Your task to perform on an android device: turn on the 24-hour format for clock Image 0: 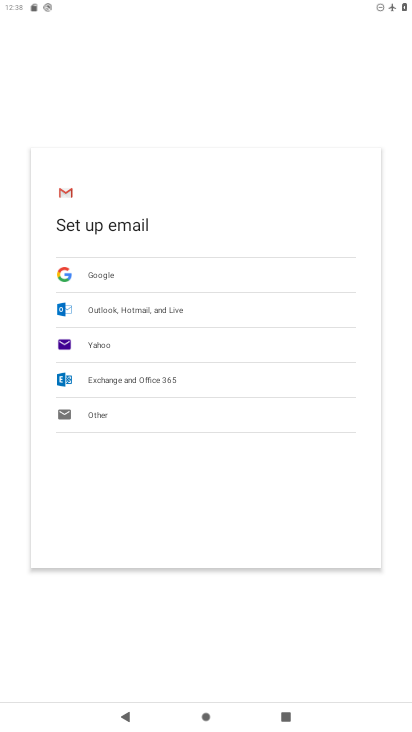
Step 0: press home button
Your task to perform on an android device: turn on the 24-hour format for clock Image 1: 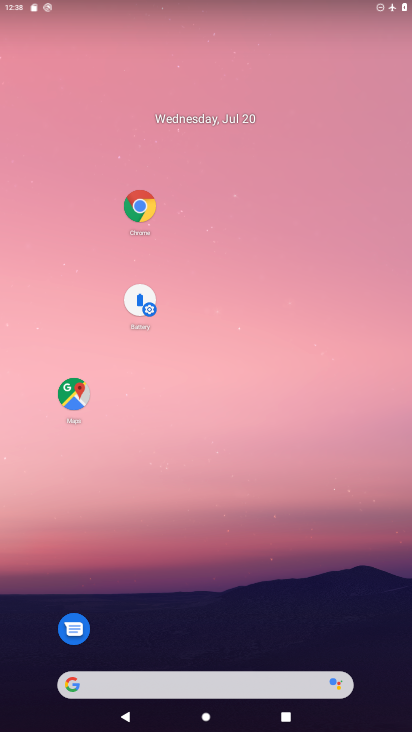
Step 1: drag from (243, 604) to (295, 33)
Your task to perform on an android device: turn on the 24-hour format for clock Image 2: 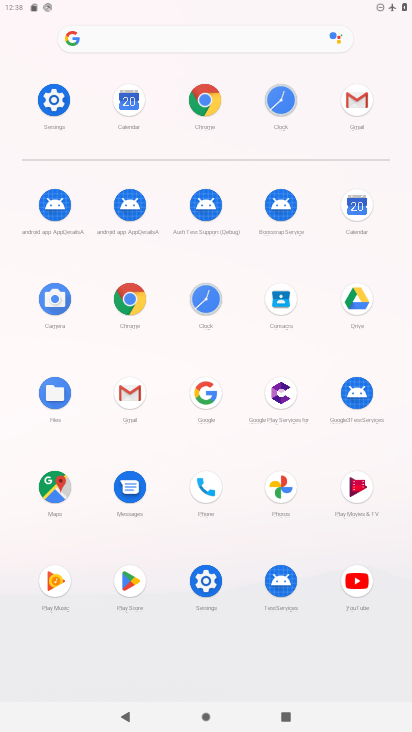
Step 2: click (195, 293)
Your task to perform on an android device: turn on the 24-hour format for clock Image 3: 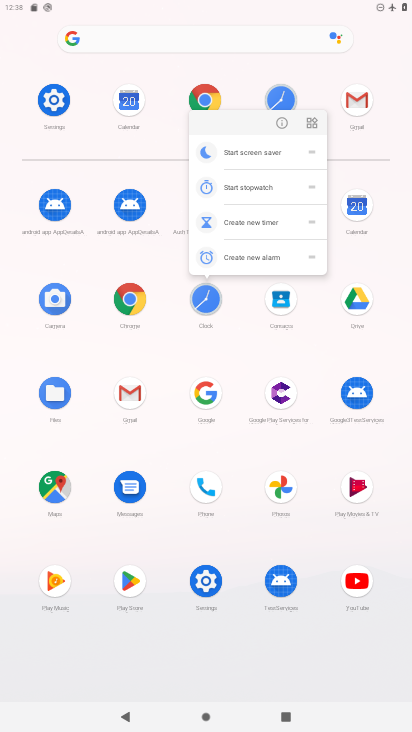
Step 3: click (284, 117)
Your task to perform on an android device: turn on the 24-hour format for clock Image 4: 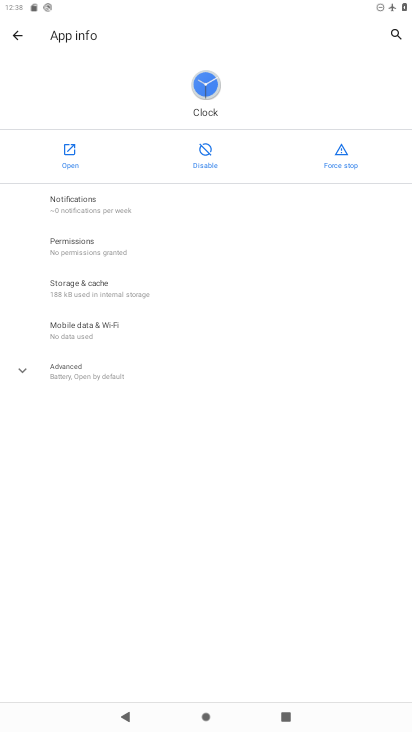
Step 4: drag from (136, 568) to (226, 219)
Your task to perform on an android device: turn on the 24-hour format for clock Image 5: 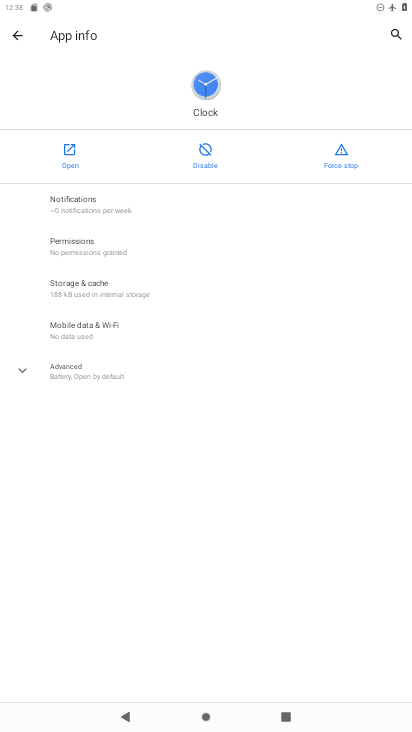
Step 5: click (69, 152)
Your task to perform on an android device: turn on the 24-hour format for clock Image 6: 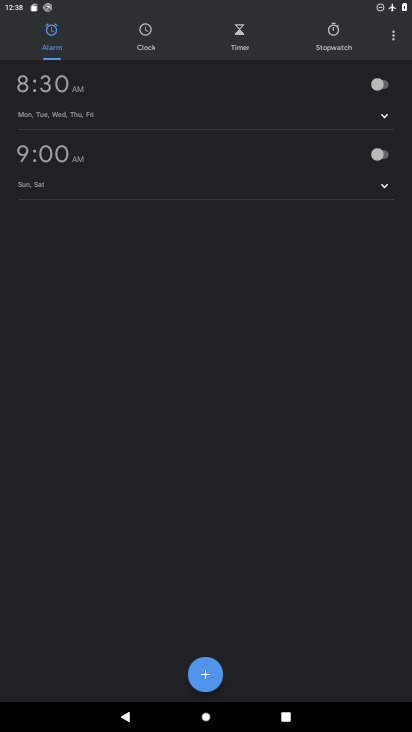
Step 6: click (395, 36)
Your task to perform on an android device: turn on the 24-hour format for clock Image 7: 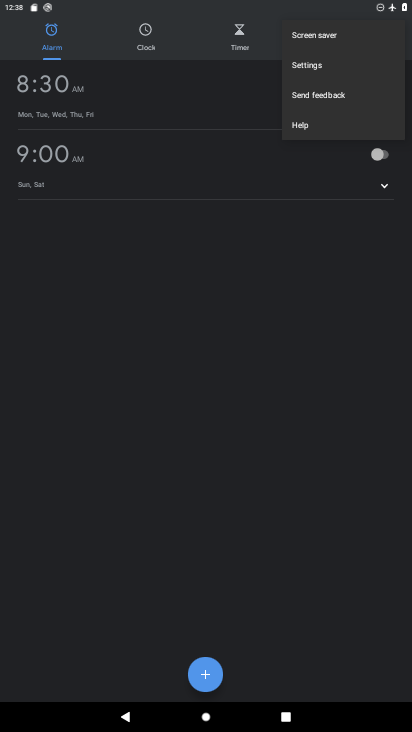
Step 7: click (325, 64)
Your task to perform on an android device: turn on the 24-hour format for clock Image 8: 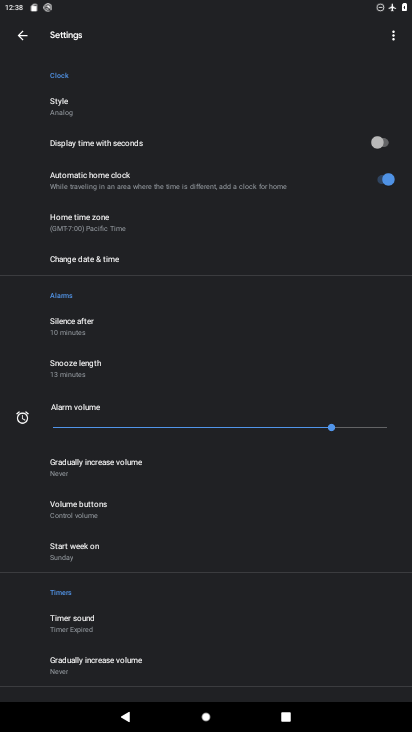
Step 8: click (113, 261)
Your task to perform on an android device: turn on the 24-hour format for clock Image 9: 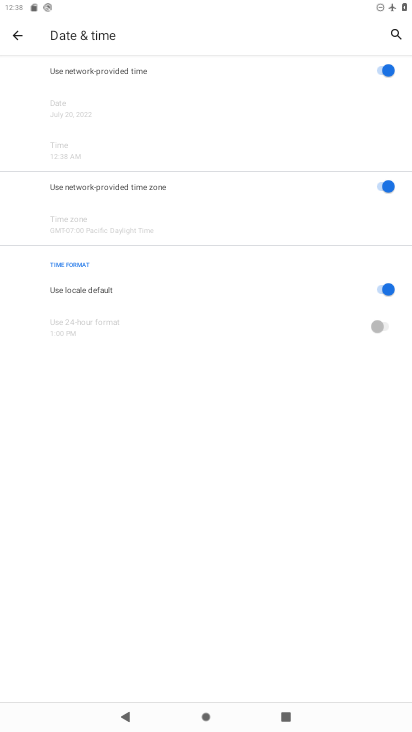
Step 9: drag from (284, 522) to (281, 237)
Your task to perform on an android device: turn on the 24-hour format for clock Image 10: 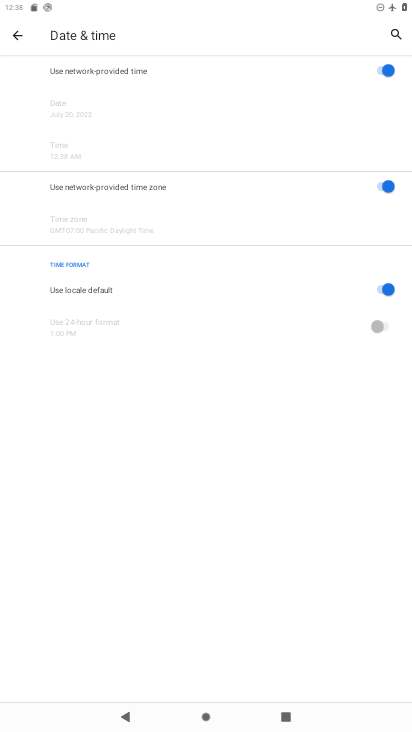
Step 10: click (367, 289)
Your task to perform on an android device: turn on the 24-hour format for clock Image 11: 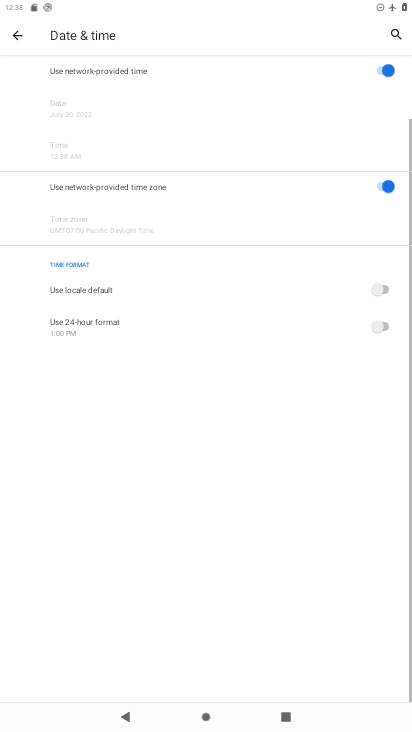
Step 11: click (374, 327)
Your task to perform on an android device: turn on the 24-hour format for clock Image 12: 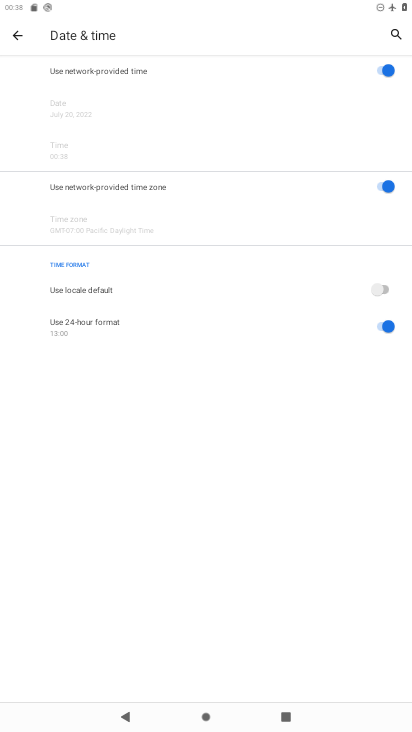
Step 12: task complete